Your task to perform on an android device: Open Google Maps Image 0: 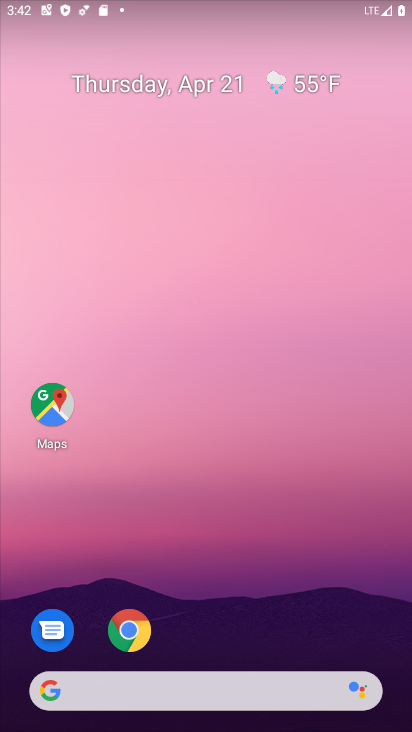
Step 0: click (51, 411)
Your task to perform on an android device: Open Google Maps Image 1: 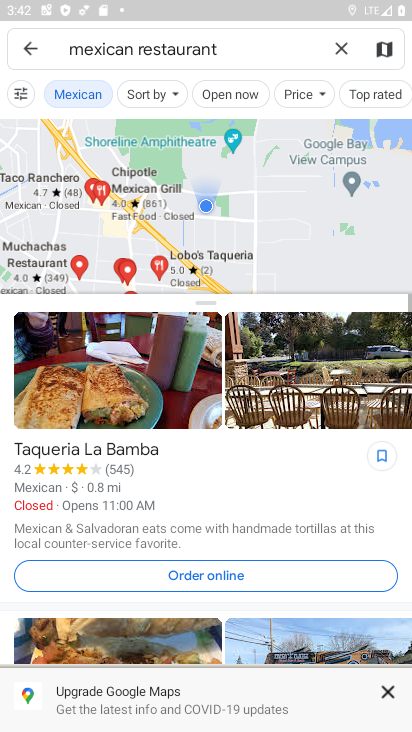
Step 1: task complete